Your task to perform on an android device: Open network settings Image 0: 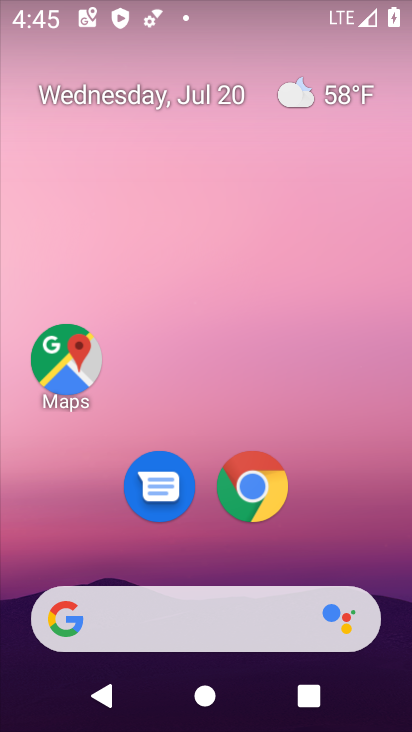
Step 0: drag from (100, 552) to (194, 3)
Your task to perform on an android device: Open network settings Image 1: 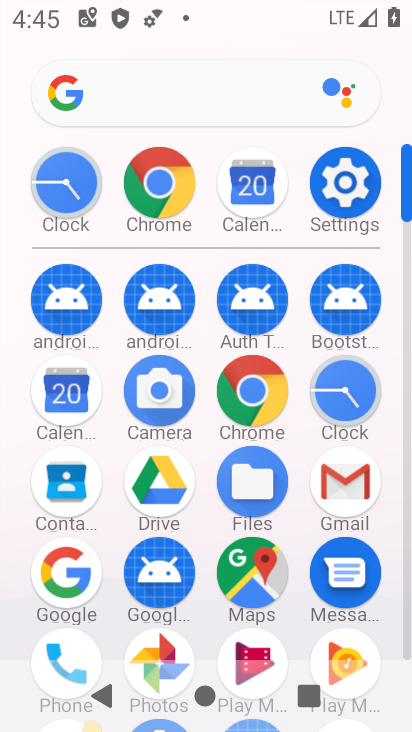
Step 1: click (360, 169)
Your task to perform on an android device: Open network settings Image 2: 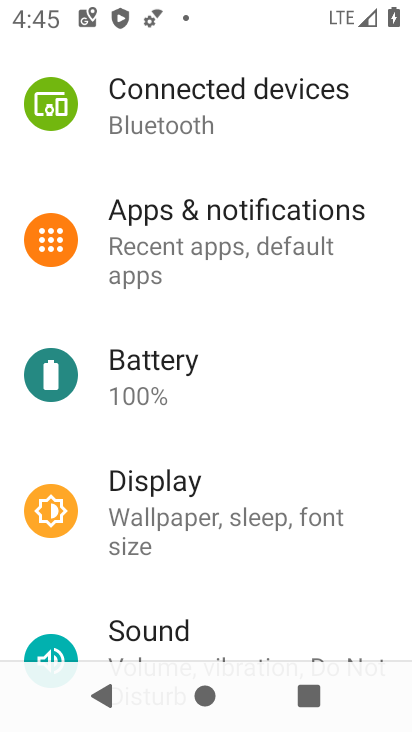
Step 2: drag from (254, 197) to (221, 729)
Your task to perform on an android device: Open network settings Image 3: 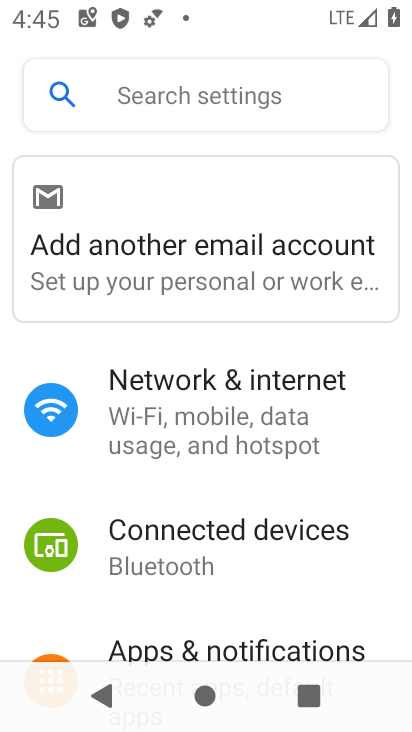
Step 3: click (192, 413)
Your task to perform on an android device: Open network settings Image 4: 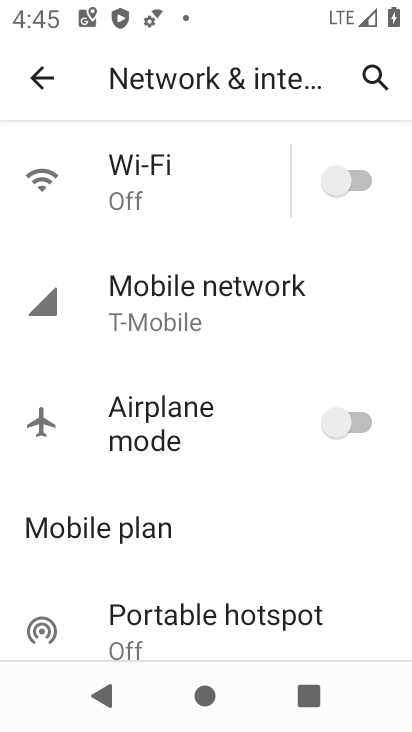
Step 4: task complete